Your task to perform on an android device: Open Google Chrome and open the bookmarks view Image 0: 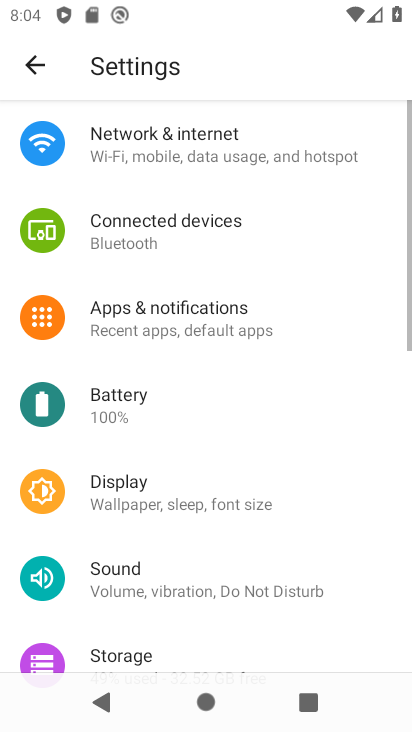
Step 0: press home button
Your task to perform on an android device: Open Google Chrome and open the bookmarks view Image 1: 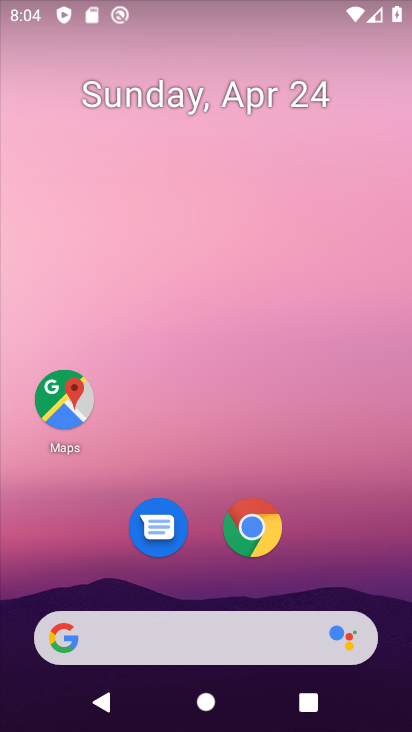
Step 1: click (259, 532)
Your task to perform on an android device: Open Google Chrome and open the bookmarks view Image 2: 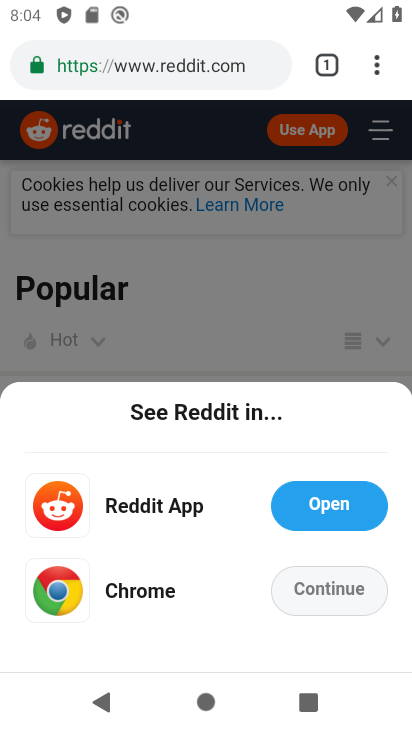
Step 2: click (378, 68)
Your task to perform on an android device: Open Google Chrome and open the bookmarks view Image 3: 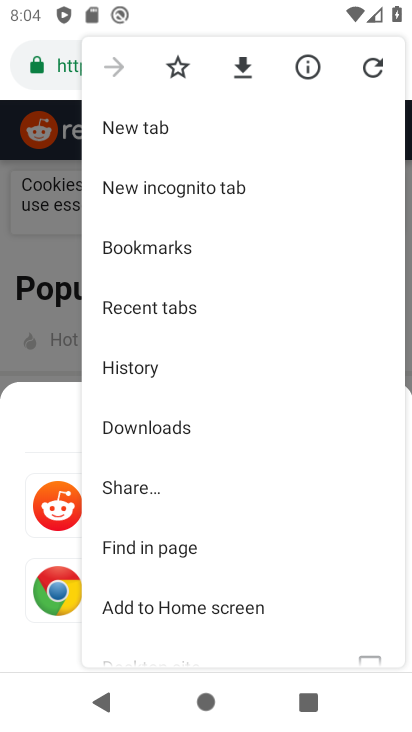
Step 3: click (109, 242)
Your task to perform on an android device: Open Google Chrome and open the bookmarks view Image 4: 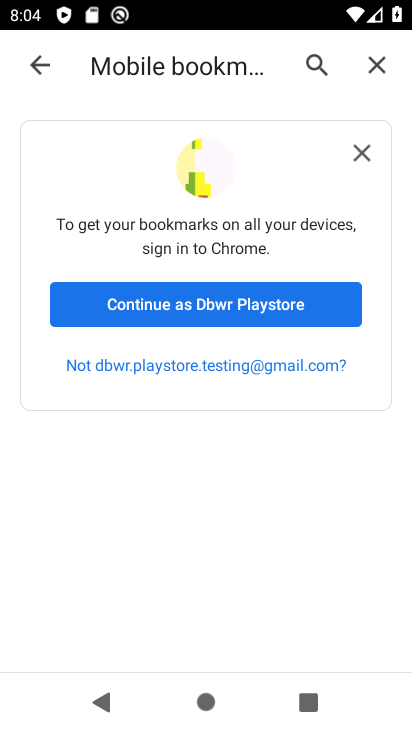
Step 4: click (188, 314)
Your task to perform on an android device: Open Google Chrome and open the bookmarks view Image 5: 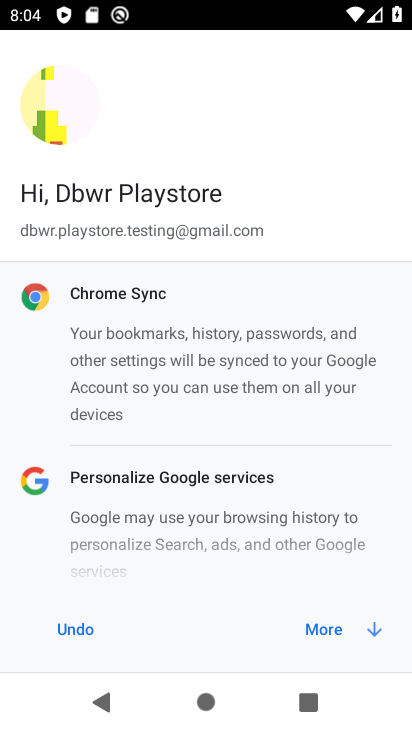
Step 5: click (346, 629)
Your task to perform on an android device: Open Google Chrome and open the bookmarks view Image 6: 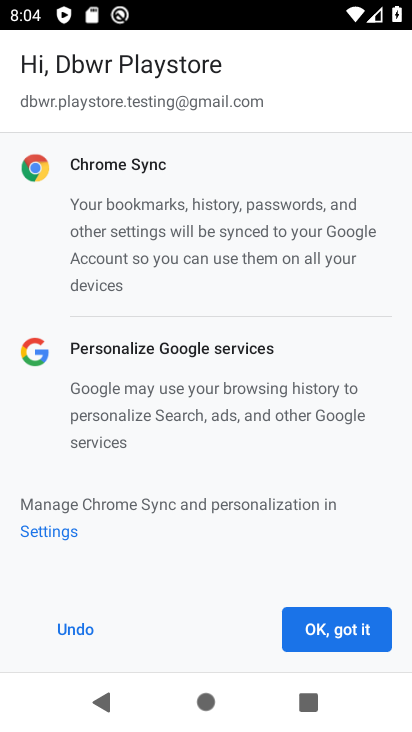
Step 6: click (346, 629)
Your task to perform on an android device: Open Google Chrome and open the bookmarks view Image 7: 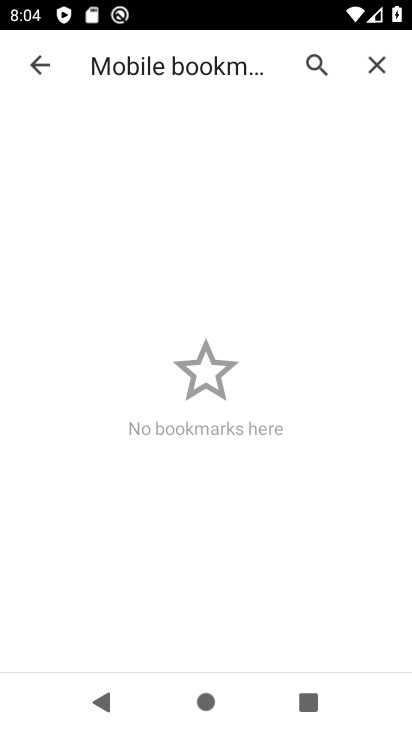
Step 7: task complete